Your task to perform on an android device: install app "Lyft - Rideshare, Bikes, Scooters & Transit" Image 0: 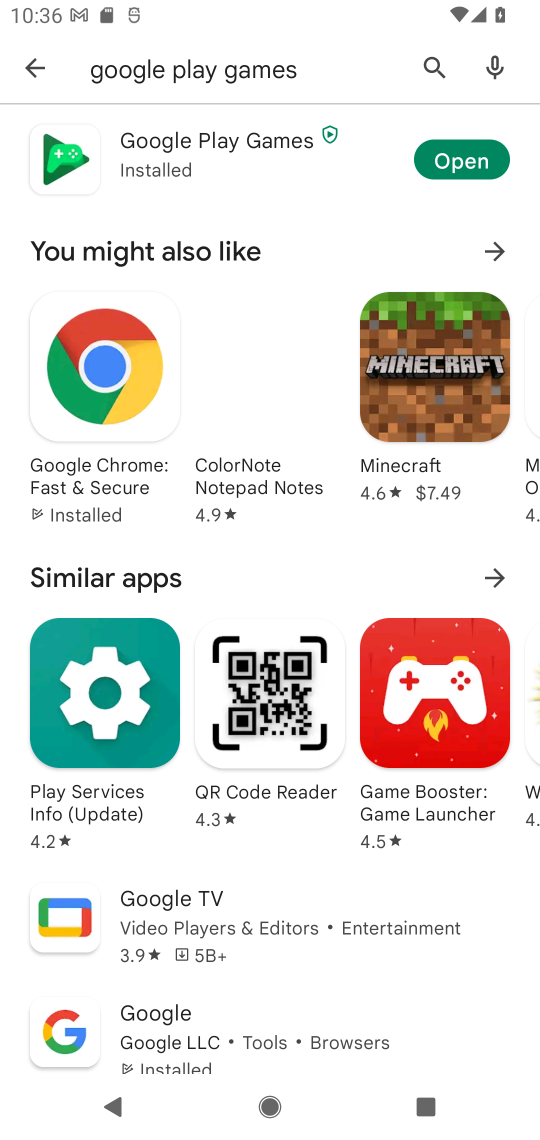
Step 0: press home button
Your task to perform on an android device: install app "Lyft - Rideshare, Bikes, Scooters & Transit" Image 1: 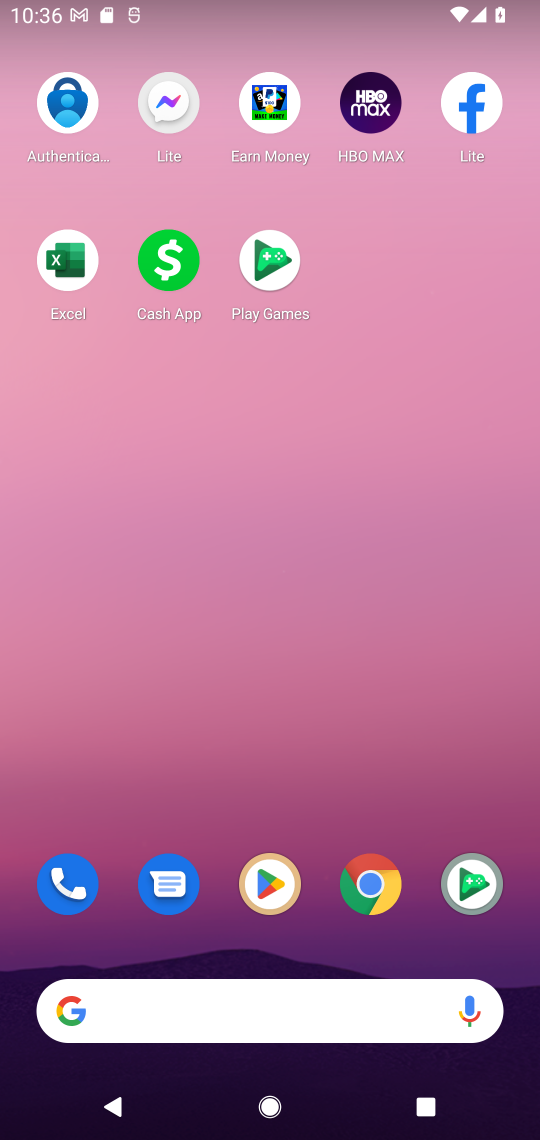
Step 1: drag from (176, 1026) to (258, 82)
Your task to perform on an android device: install app "Lyft - Rideshare, Bikes, Scooters & Transit" Image 2: 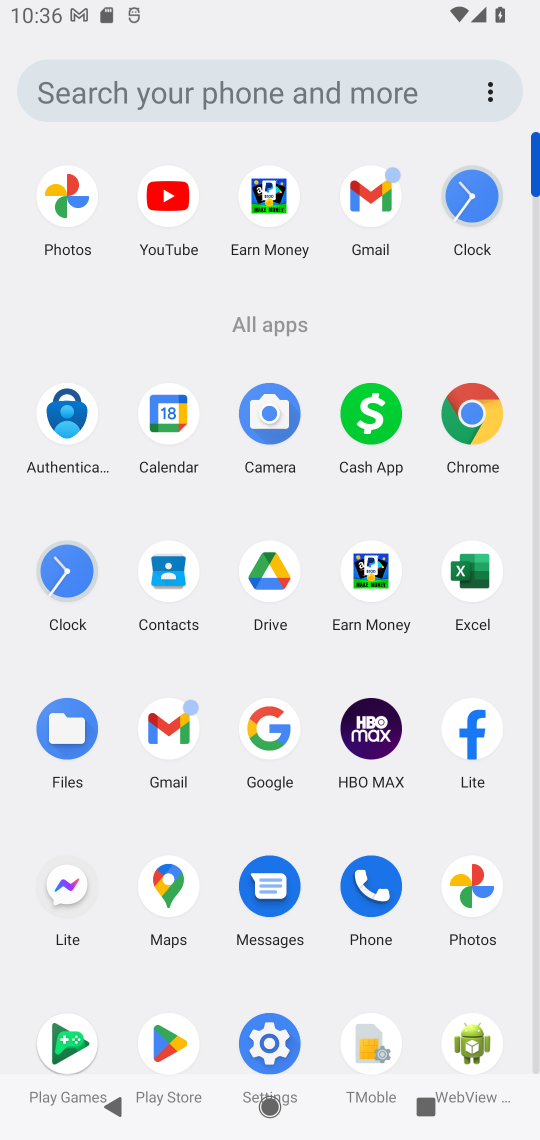
Step 2: click (174, 1052)
Your task to perform on an android device: install app "Lyft - Rideshare, Bikes, Scooters & Transit" Image 3: 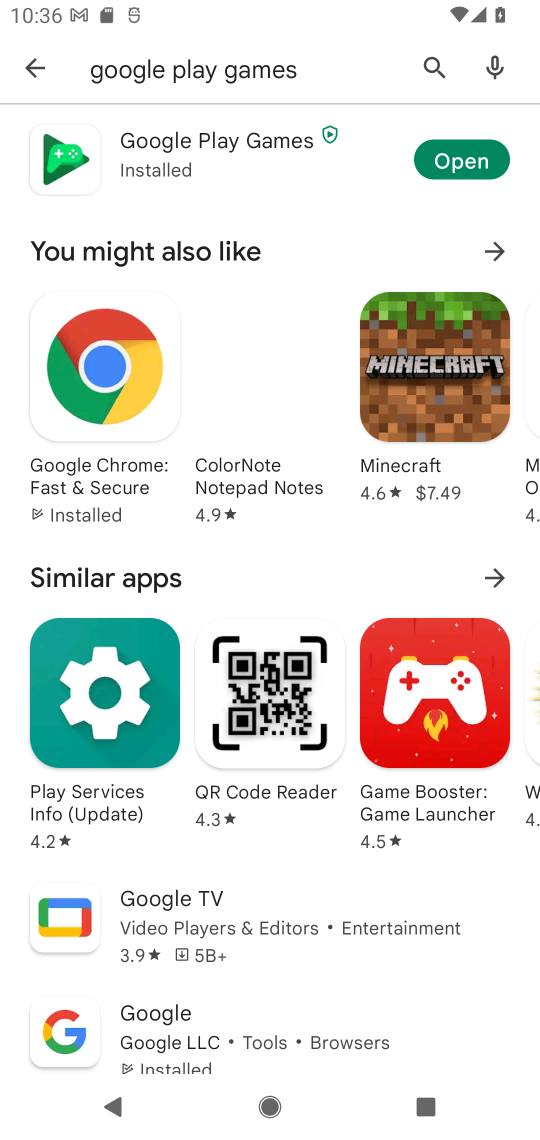
Step 3: press back button
Your task to perform on an android device: install app "Lyft - Rideshare, Bikes, Scooters & Transit" Image 4: 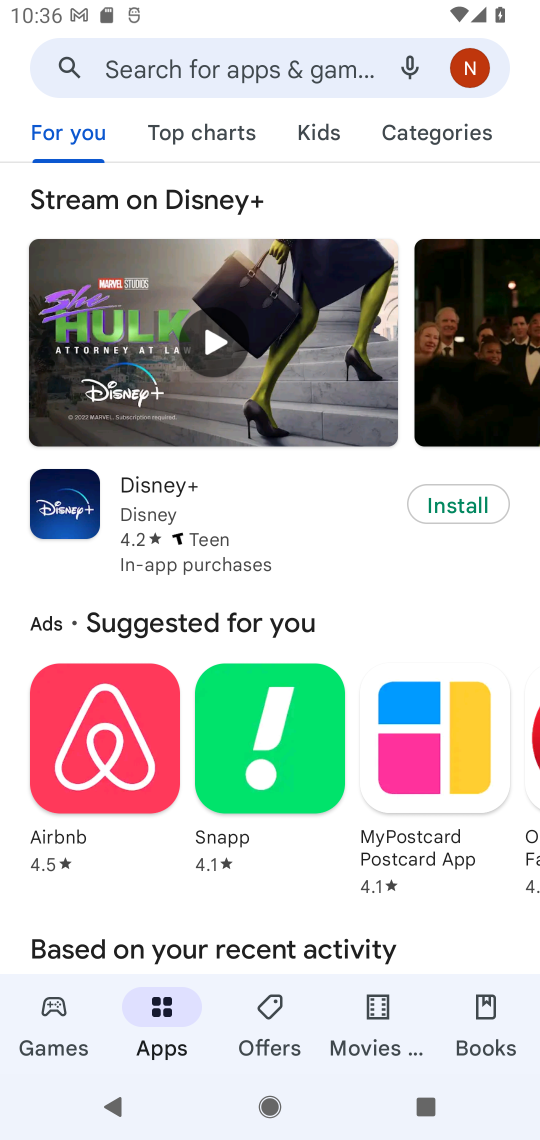
Step 4: click (292, 53)
Your task to perform on an android device: install app "Lyft - Rideshare, Bikes, Scooters & Transit" Image 5: 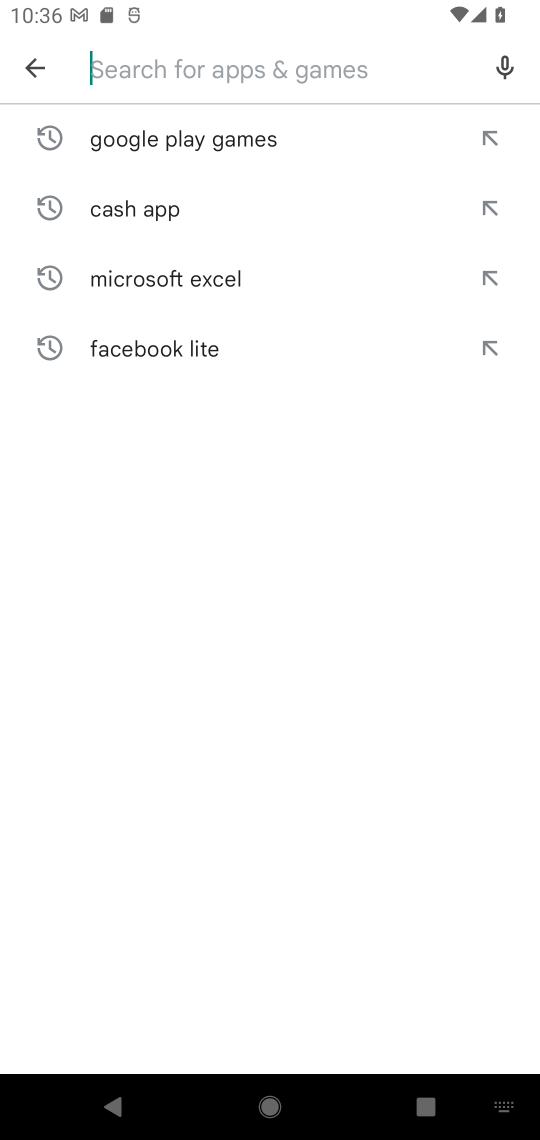
Step 5: type "Lyft - Rideshare, Bikes, Scooters & Transit"
Your task to perform on an android device: install app "Lyft - Rideshare, Bikes, Scooters & Transit" Image 6: 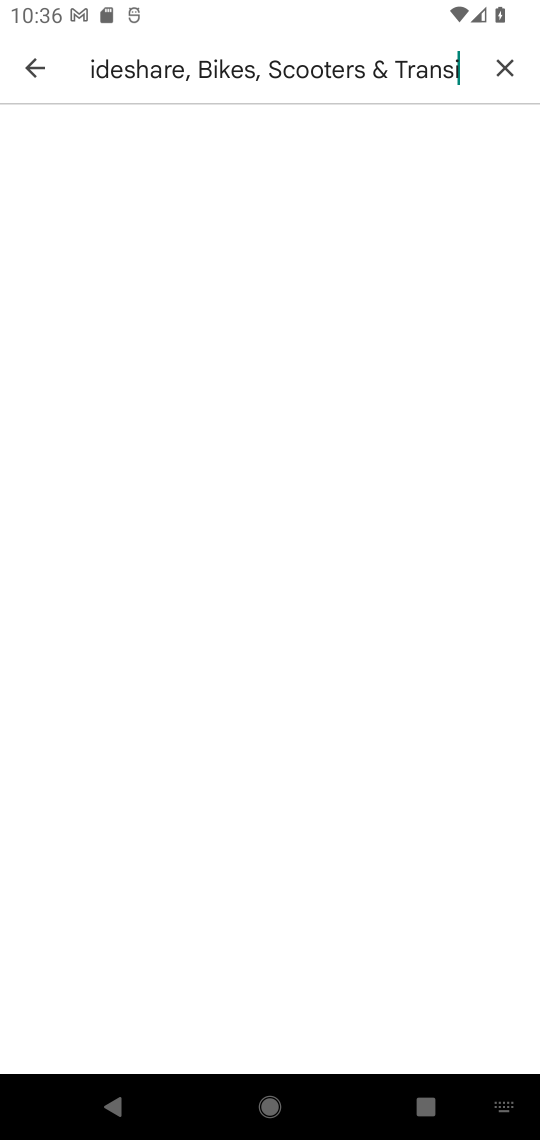
Step 6: type ""
Your task to perform on an android device: install app "Lyft - Rideshare, Bikes, Scooters & Transit" Image 7: 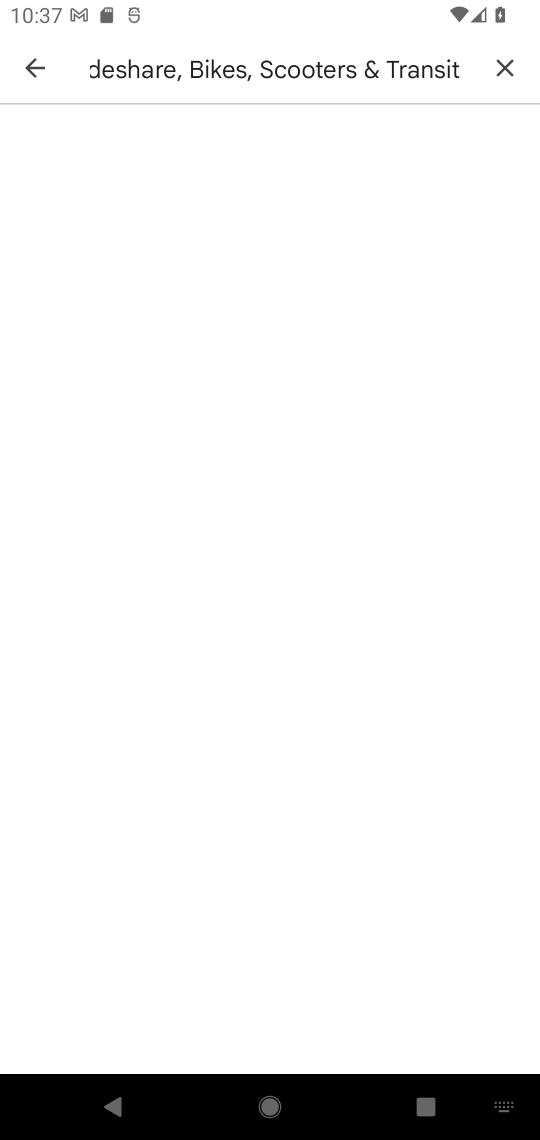
Step 7: press back button
Your task to perform on an android device: install app "Lyft - Rideshare, Bikes, Scooters & Transit" Image 8: 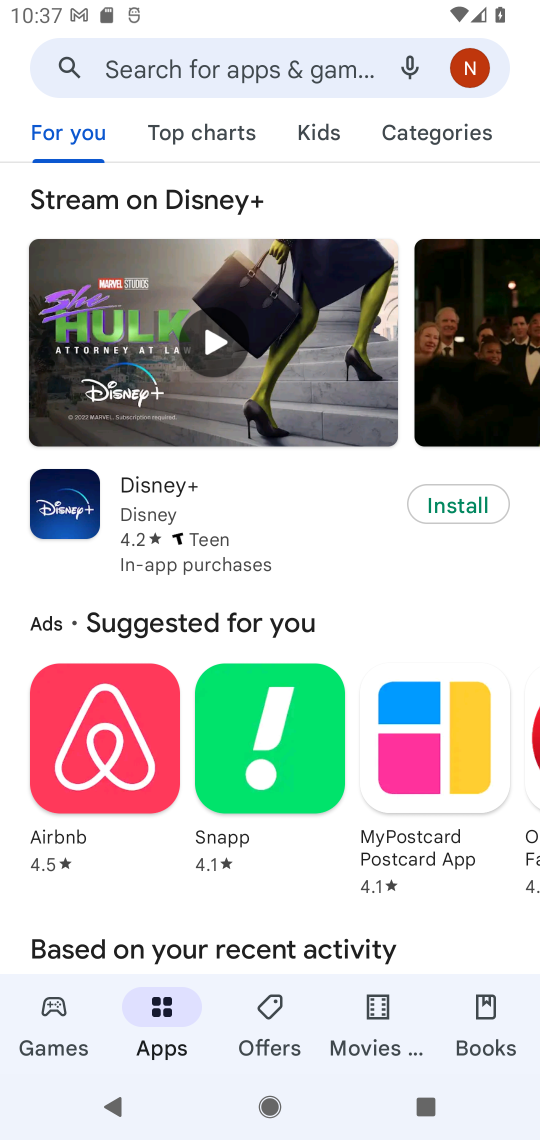
Step 8: click (248, 53)
Your task to perform on an android device: install app "Lyft - Rideshare, Bikes, Scooters & Transit" Image 9: 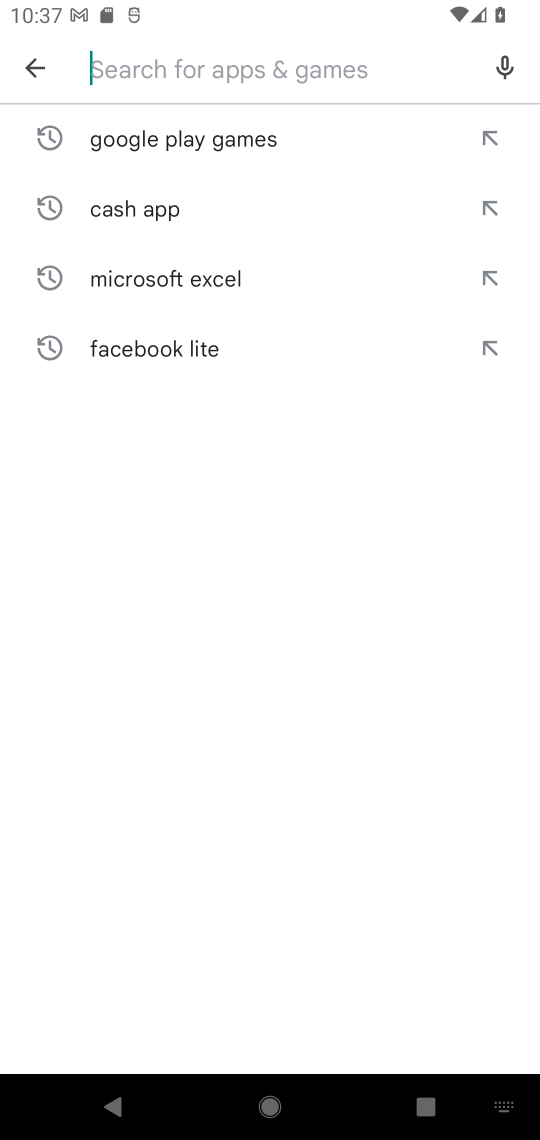
Step 9: task complete